Your task to perform on an android device: turn on location history Image 0: 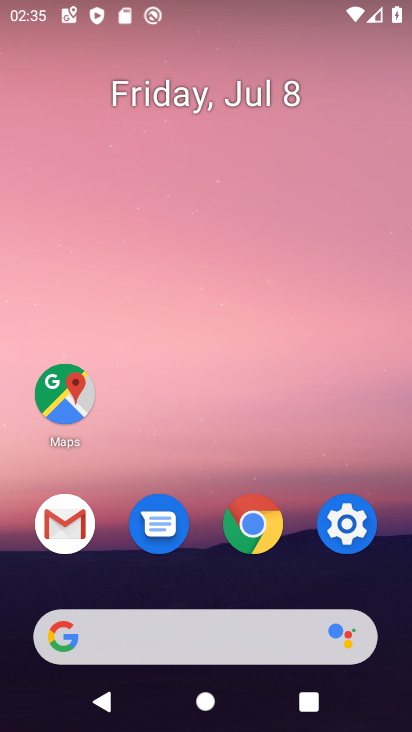
Step 0: click (332, 543)
Your task to perform on an android device: turn on location history Image 1: 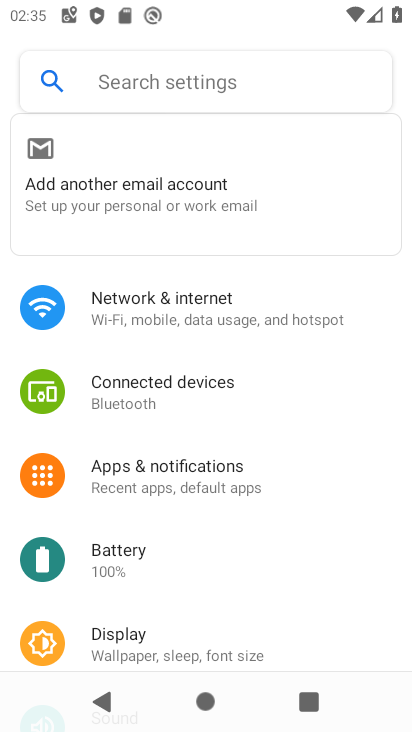
Step 1: drag from (226, 582) to (268, 409)
Your task to perform on an android device: turn on location history Image 2: 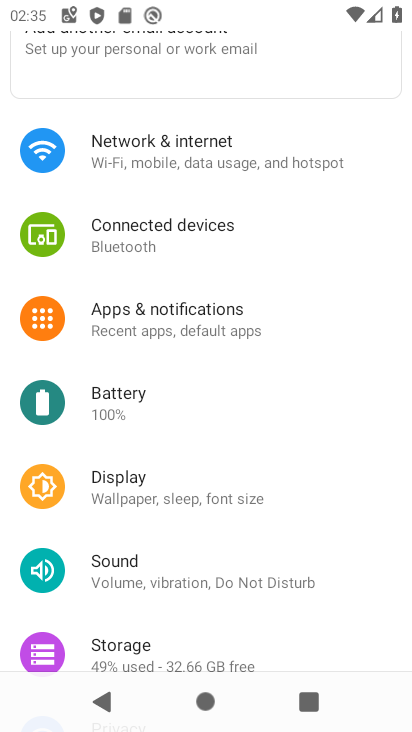
Step 2: drag from (169, 611) to (183, 320)
Your task to perform on an android device: turn on location history Image 3: 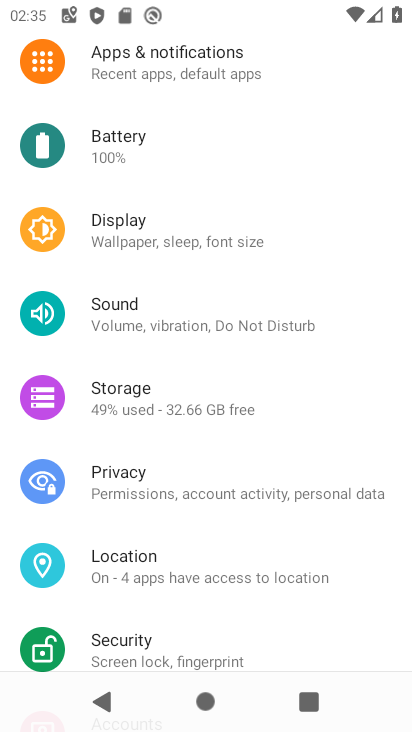
Step 3: click (131, 555)
Your task to perform on an android device: turn on location history Image 4: 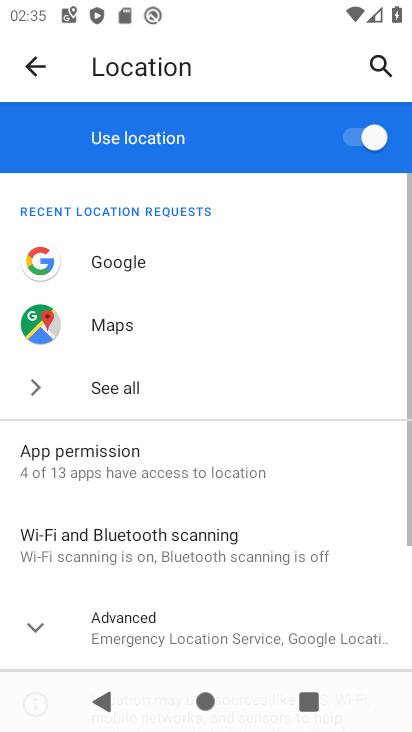
Step 4: click (39, 634)
Your task to perform on an android device: turn on location history Image 5: 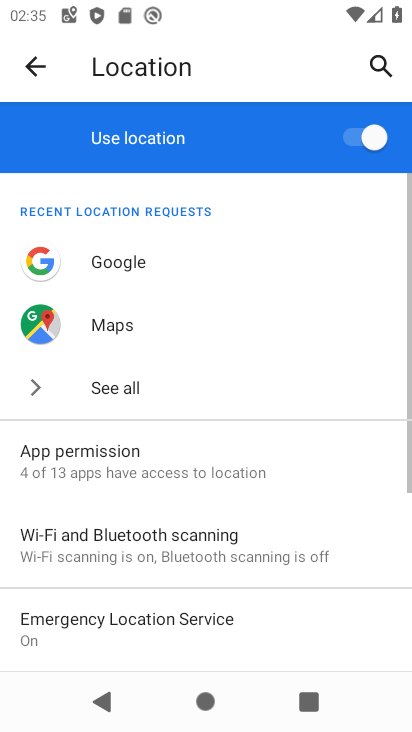
Step 5: drag from (148, 622) to (154, 467)
Your task to perform on an android device: turn on location history Image 6: 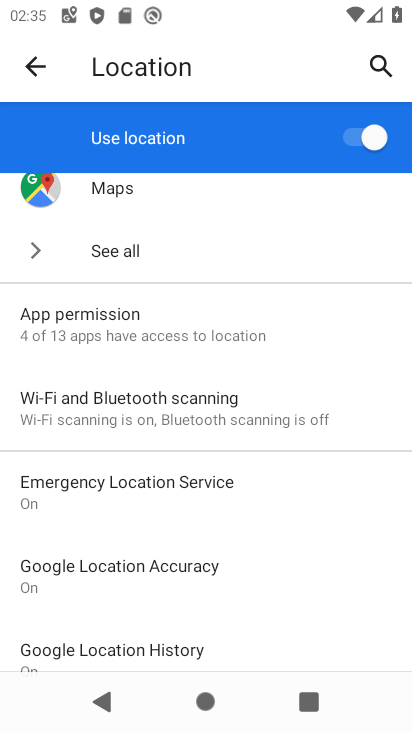
Step 6: click (131, 642)
Your task to perform on an android device: turn on location history Image 7: 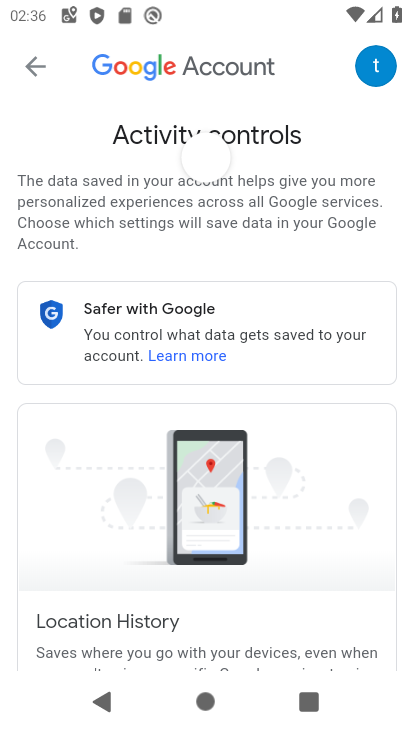
Step 7: drag from (198, 583) to (239, 293)
Your task to perform on an android device: turn on location history Image 8: 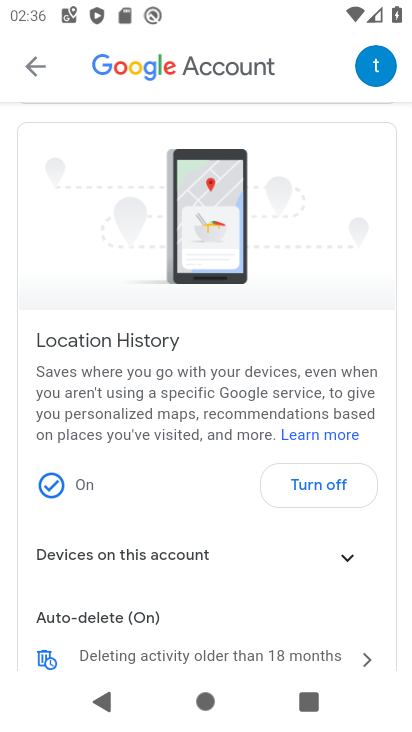
Step 8: click (68, 477)
Your task to perform on an android device: turn on location history Image 9: 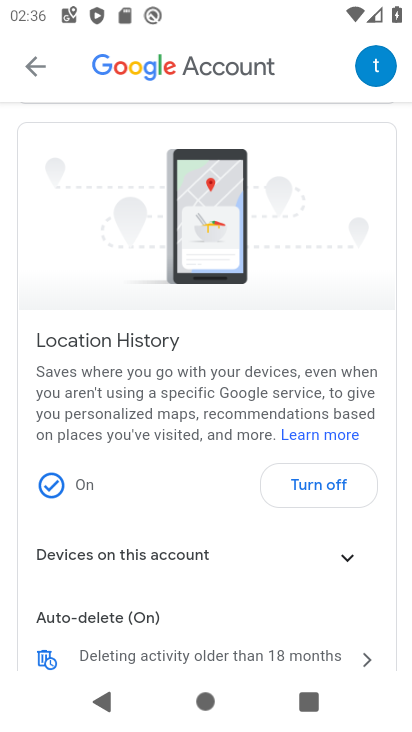
Step 9: click (65, 486)
Your task to perform on an android device: turn on location history Image 10: 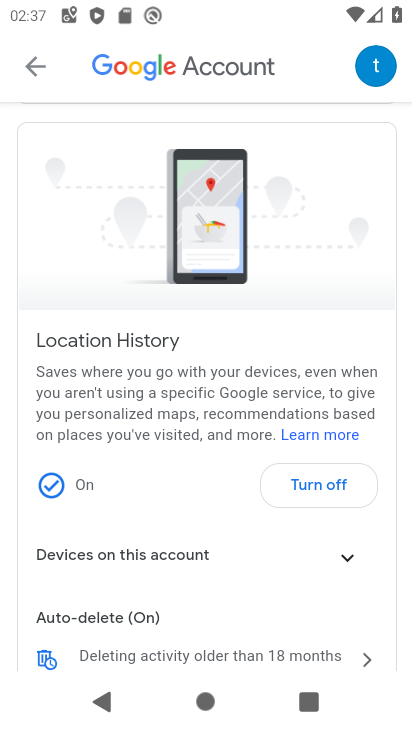
Step 10: task complete